Your task to perform on an android device: delete a single message in the gmail app Image 0: 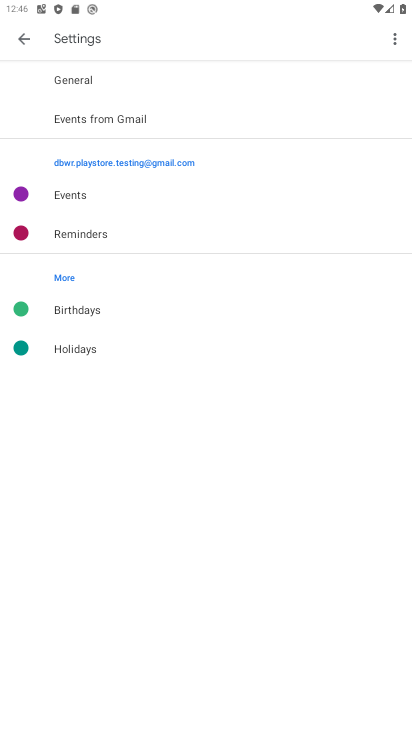
Step 0: press home button
Your task to perform on an android device: delete a single message in the gmail app Image 1: 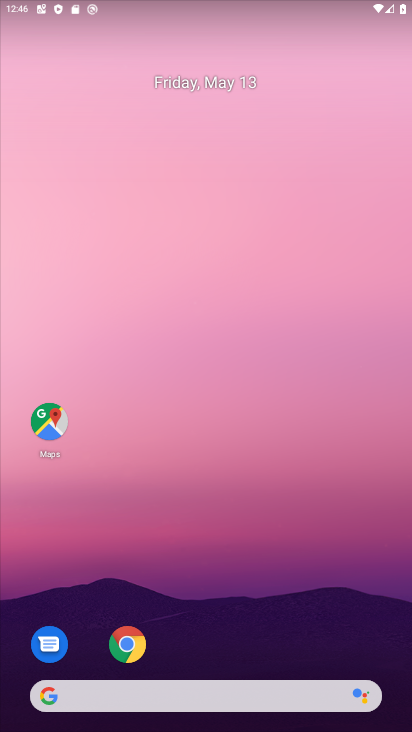
Step 1: drag from (231, 613) to (249, 70)
Your task to perform on an android device: delete a single message in the gmail app Image 2: 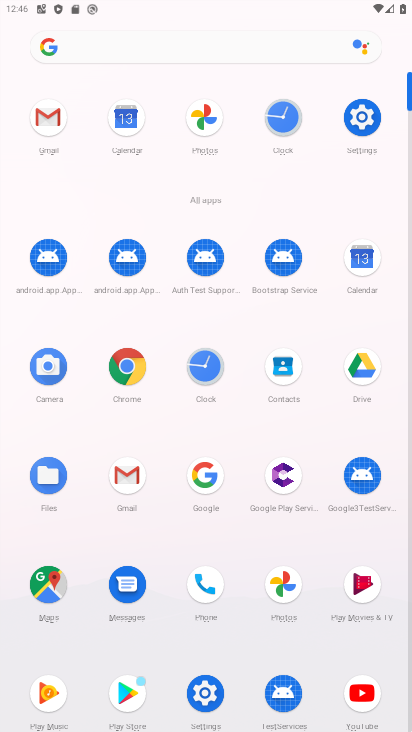
Step 2: click (36, 120)
Your task to perform on an android device: delete a single message in the gmail app Image 3: 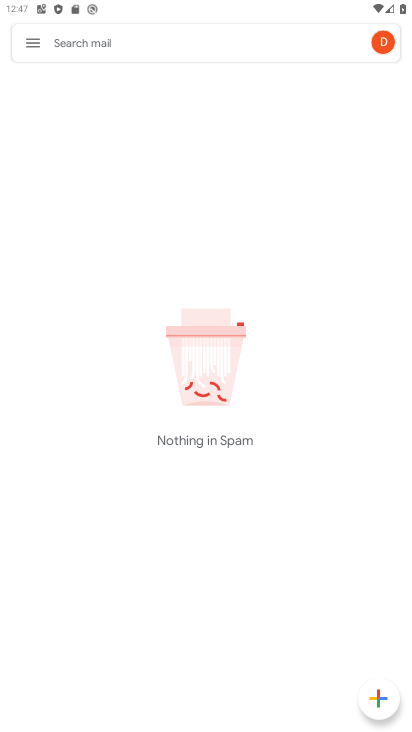
Step 3: click (32, 43)
Your task to perform on an android device: delete a single message in the gmail app Image 4: 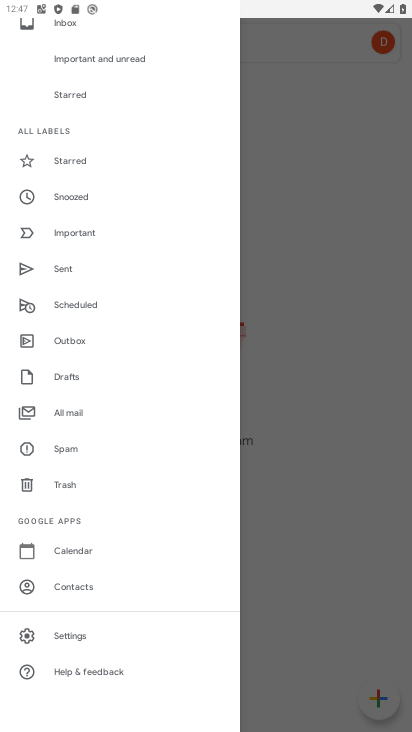
Step 4: click (82, 418)
Your task to perform on an android device: delete a single message in the gmail app Image 5: 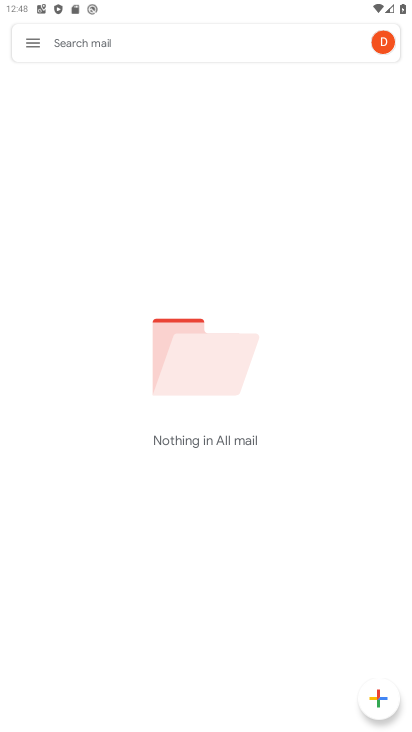
Step 5: task complete